Your task to perform on an android device: Open maps Image 0: 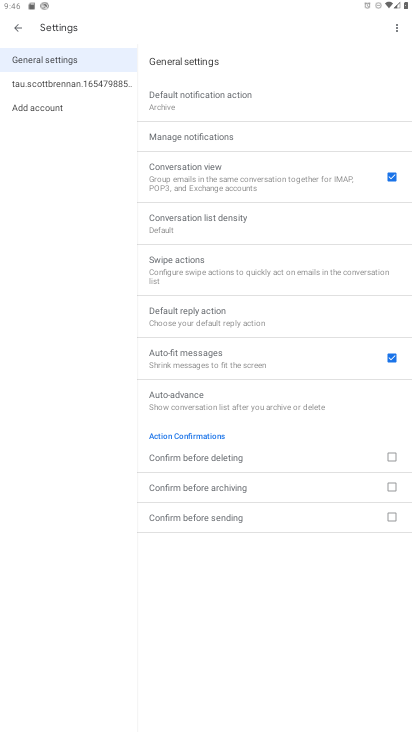
Step 0: press home button
Your task to perform on an android device: Open maps Image 1: 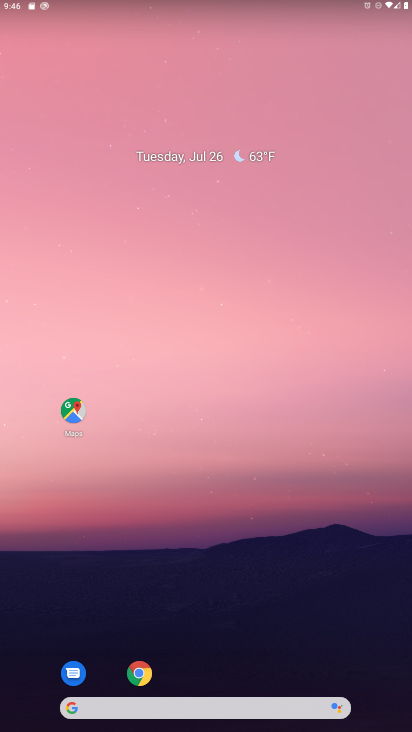
Step 1: drag from (327, 587) to (156, 22)
Your task to perform on an android device: Open maps Image 2: 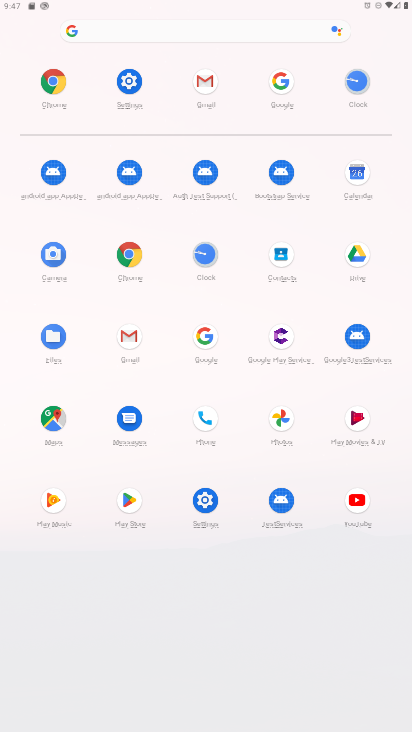
Step 2: click (48, 433)
Your task to perform on an android device: Open maps Image 3: 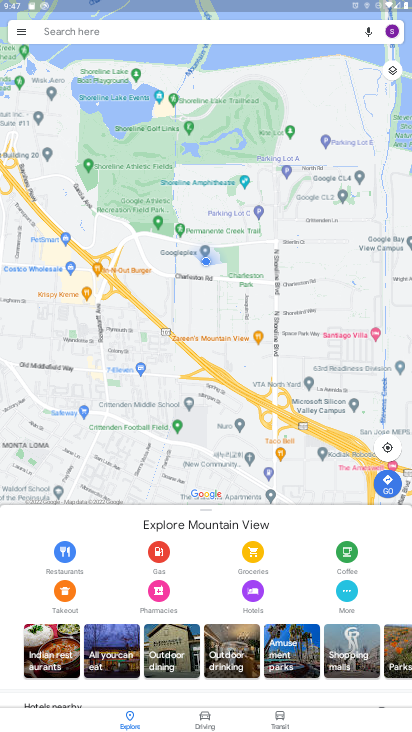
Step 3: task complete